Your task to perform on an android device: When is my next appointment? Image 0: 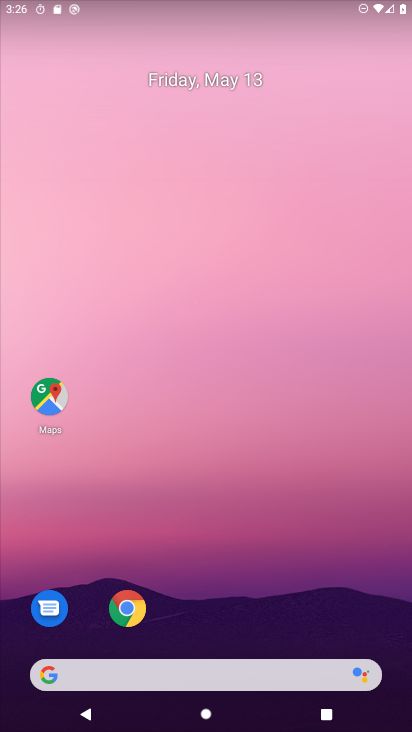
Step 0: drag from (272, 575) to (110, 7)
Your task to perform on an android device: When is my next appointment? Image 1: 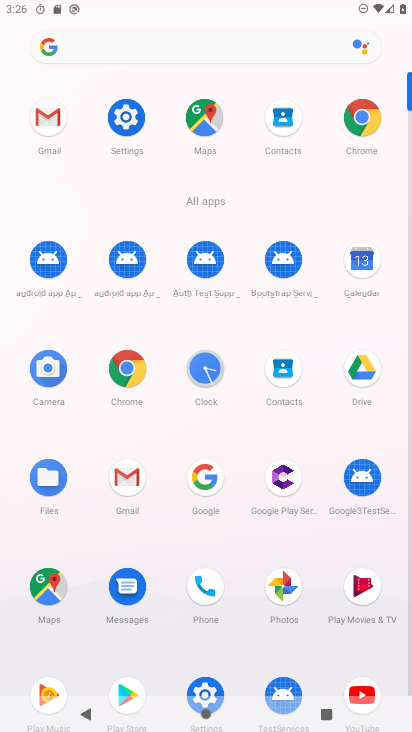
Step 1: click (362, 246)
Your task to perform on an android device: When is my next appointment? Image 2: 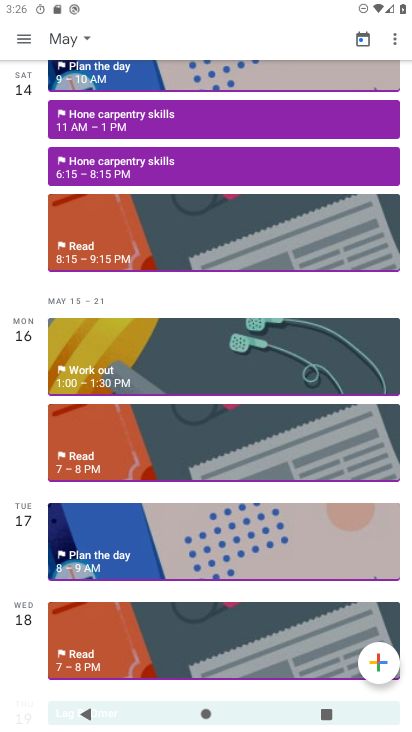
Step 2: task complete